Your task to perform on an android device: What's US dollar exchange rateagainst the Mexican Peso? Image 0: 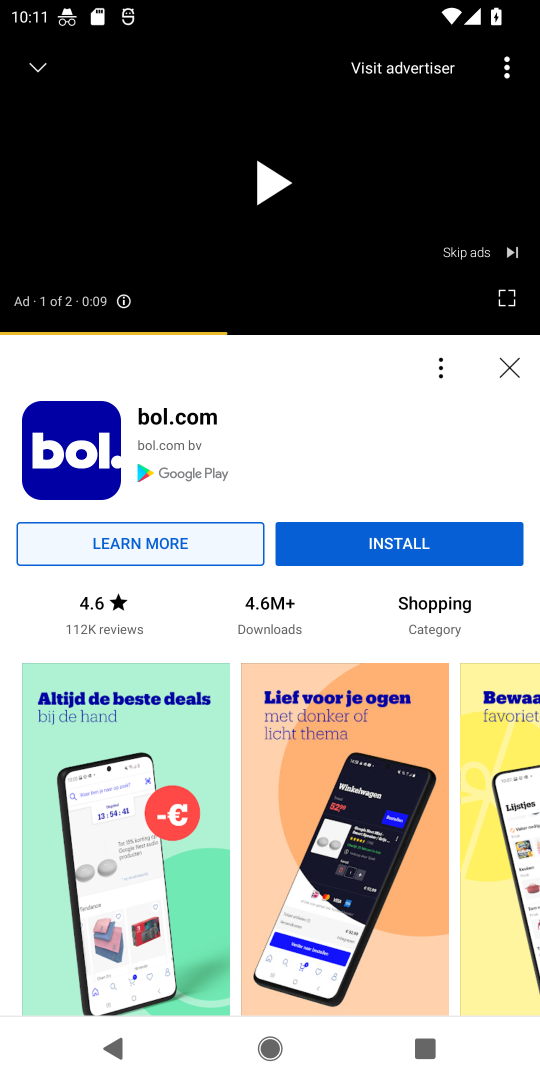
Step 0: press home button
Your task to perform on an android device: What's US dollar exchange rateagainst the Mexican Peso? Image 1: 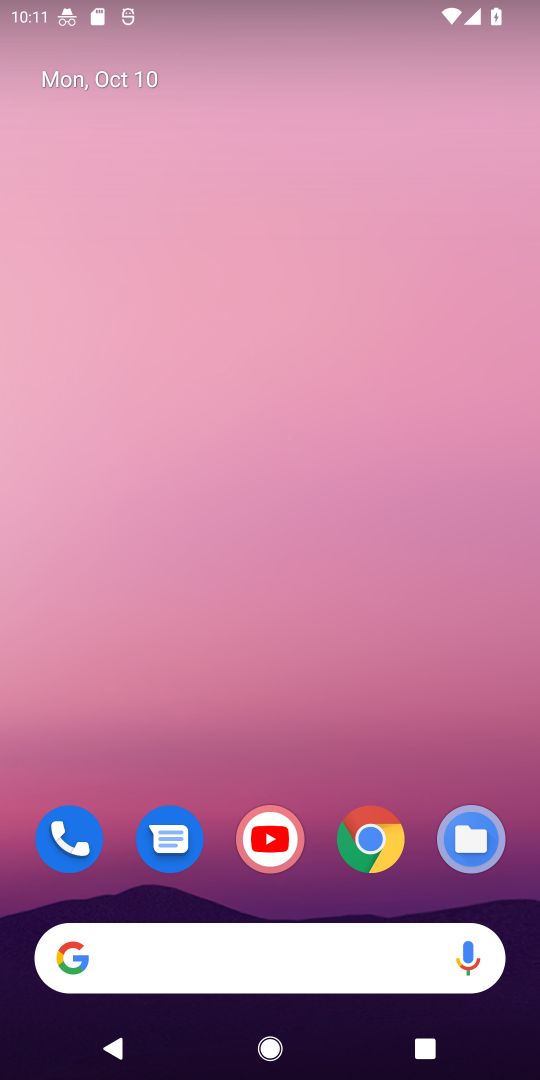
Step 1: drag from (320, 893) to (394, 25)
Your task to perform on an android device: What's US dollar exchange rateagainst the Mexican Peso? Image 2: 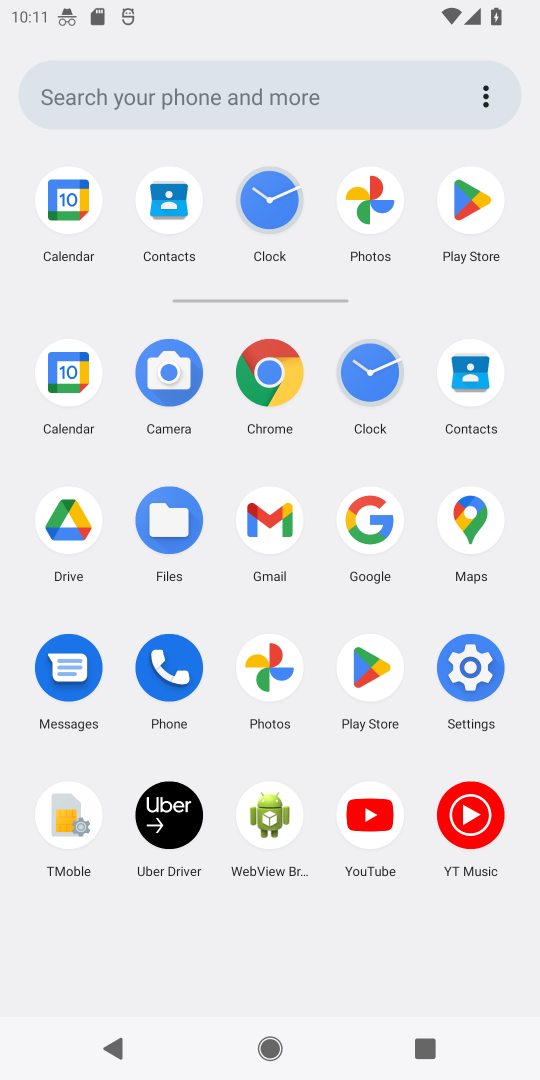
Step 2: click (273, 363)
Your task to perform on an android device: What's US dollar exchange rateagainst the Mexican Peso? Image 3: 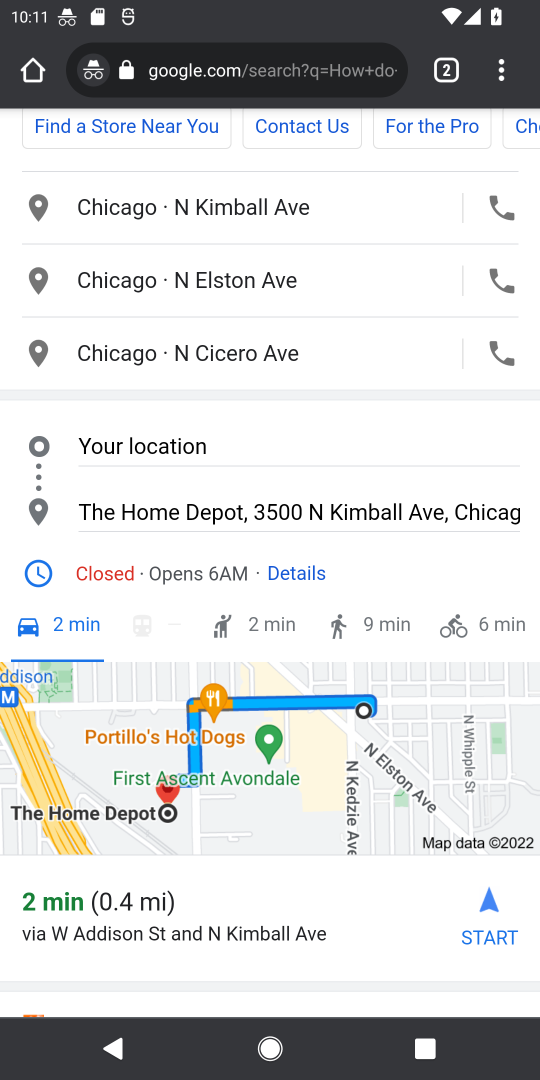
Step 3: click (265, 58)
Your task to perform on an android device: What's US dollar exchange rateagainst the Mexican Peso? Image 4: 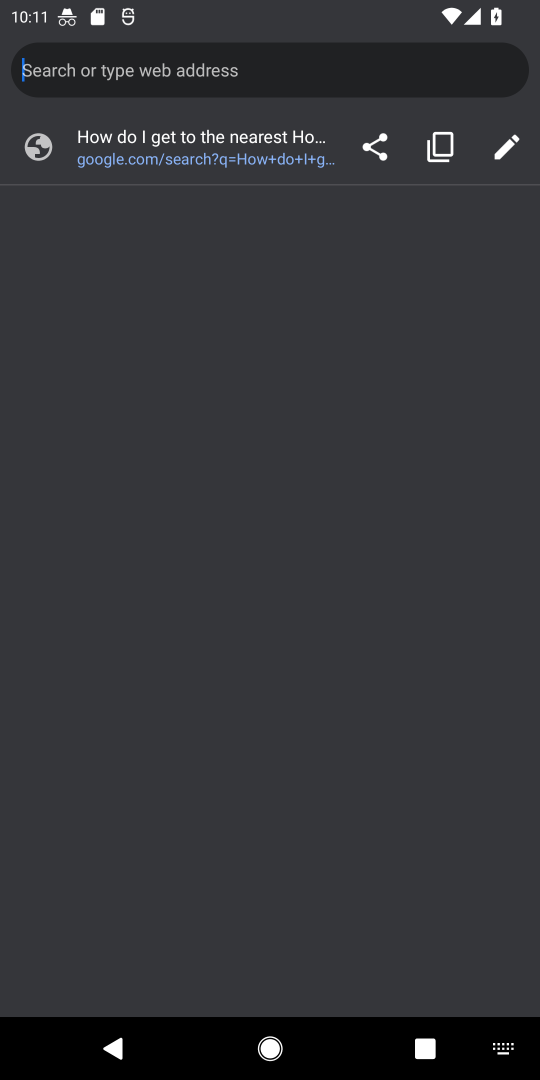
Step 4: type "What's US dollar exchange rateagainst the Mexican Peso?"
Your task to perform on an android device: What's US dollar exchange rateagainst the Mexican Peso? Image 5: 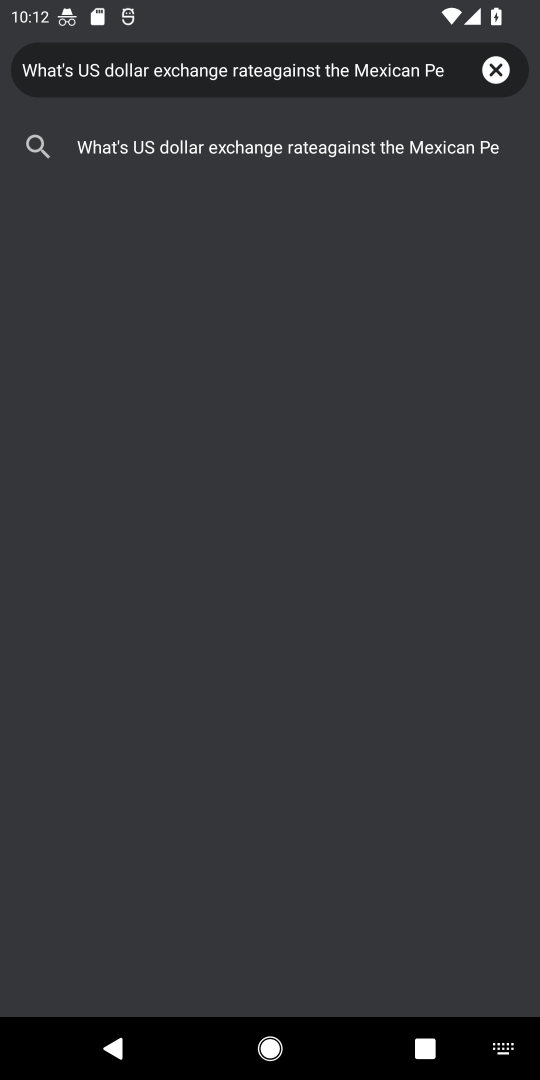
Step 5: type "so?"
Your task to perform on an android device: What's US dollar exchange rateagainst the Mexican Peso? Image 6: 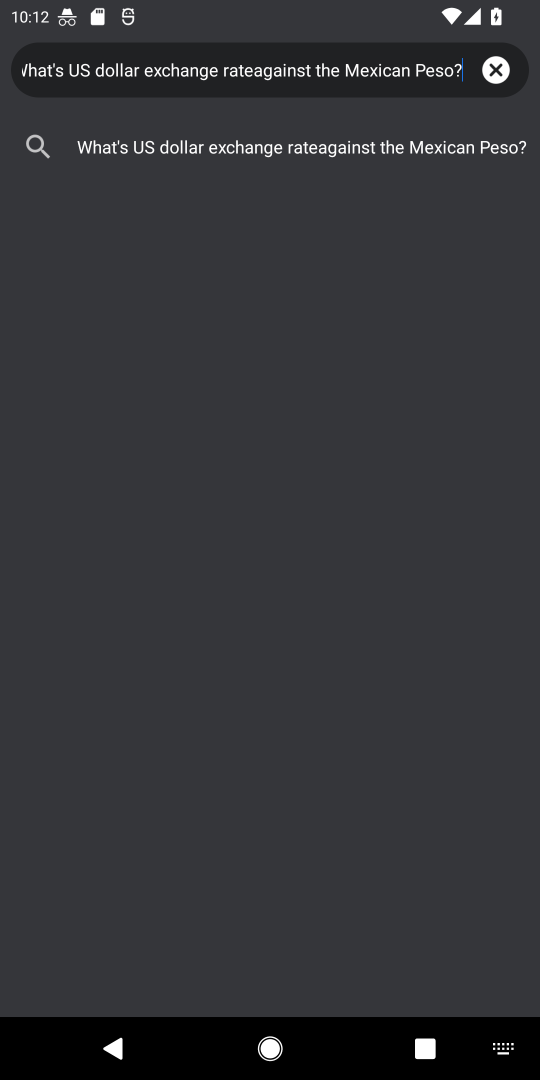
Step 6: press enter
Your task to perform on an android device: What's US dollar exchange rateagainst the Mexican Peso? Image 7: 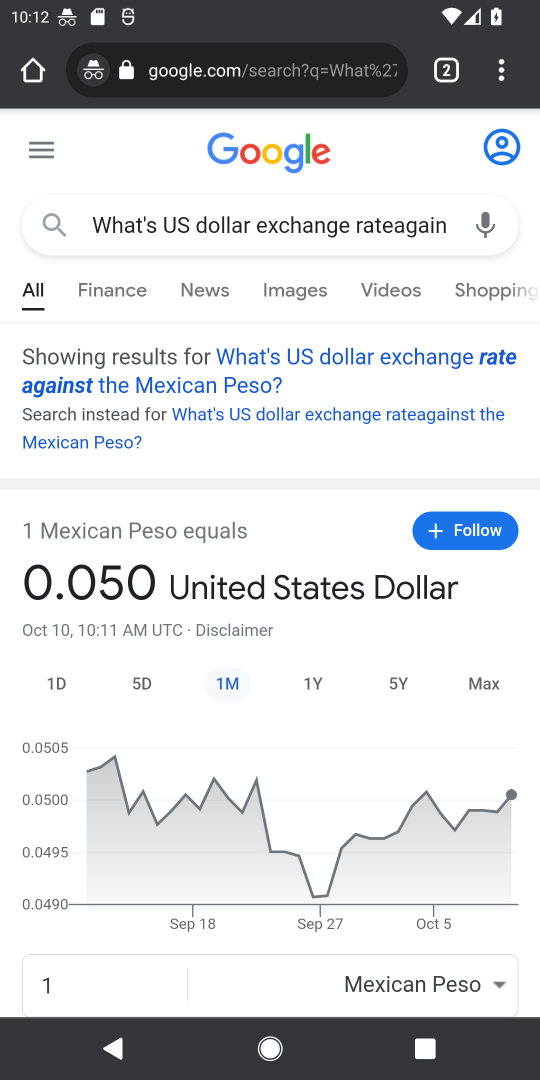
Step 7: task complete